Your task to perform on an android device: See recent photos Image 0: 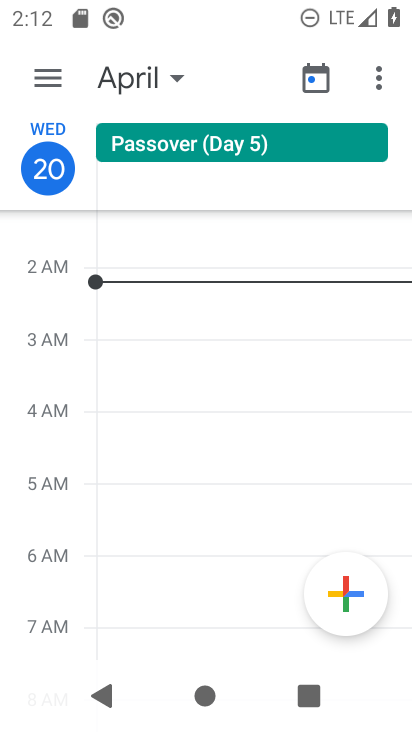
Step 0: press home button
Your task to perform on an android device: See recent photos Image 1: 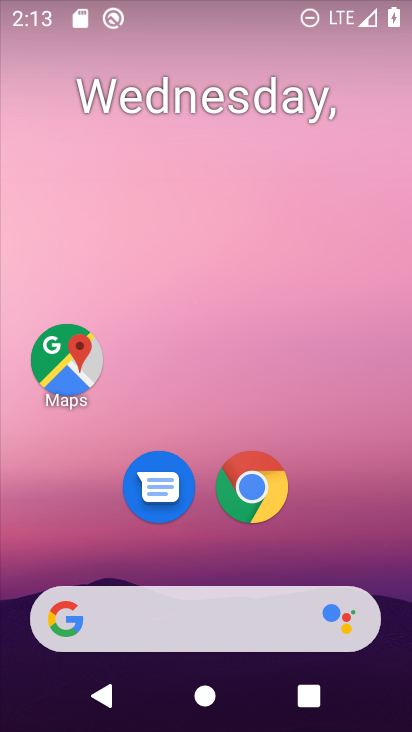
Step 1: drag from (399, 613) to (222, 55)
Your task to perform on an android device: See recent photos Image 2: 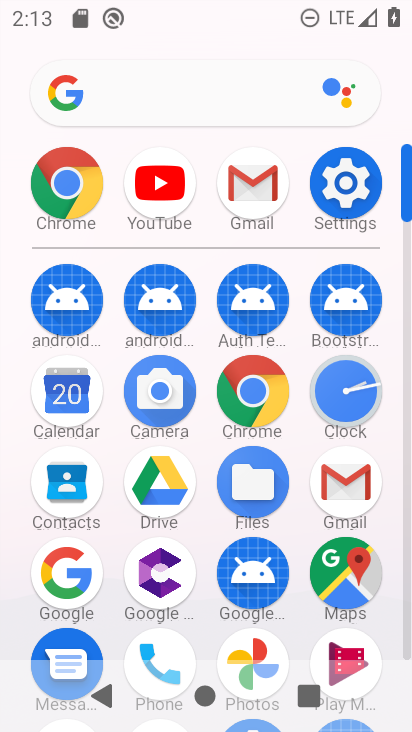
Step 2: click (246, 640)
Your task to perform on an android device: See recent photos Image 3: 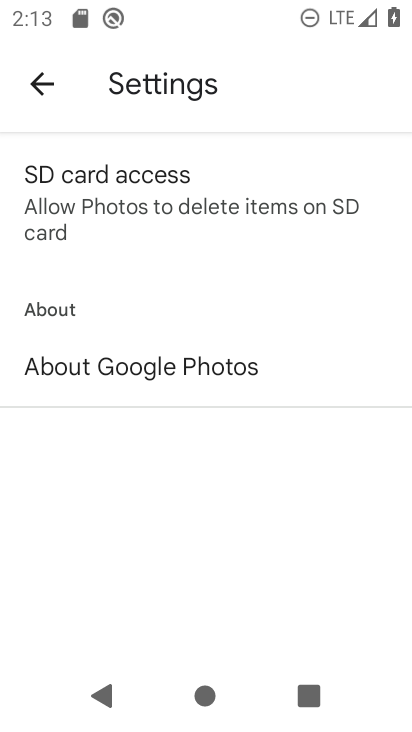
Step 3: click (43, 91)
Your task to perform on an android device: See recent photos Image 4: 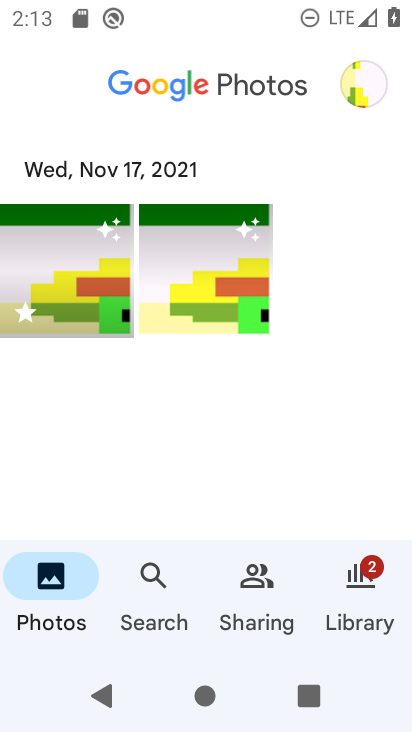
Step 4: click (56, 261)
Your task to perform on an android device: See recent photos Image 5: 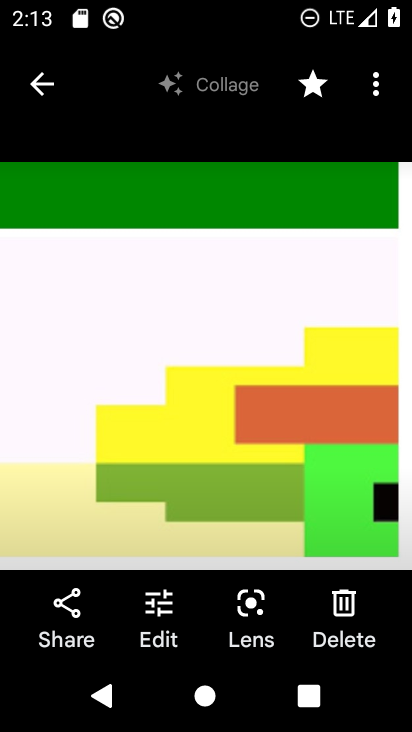
Step 5: task complete